Your task to perform on an android device: Go to accessibility settings Image 0: 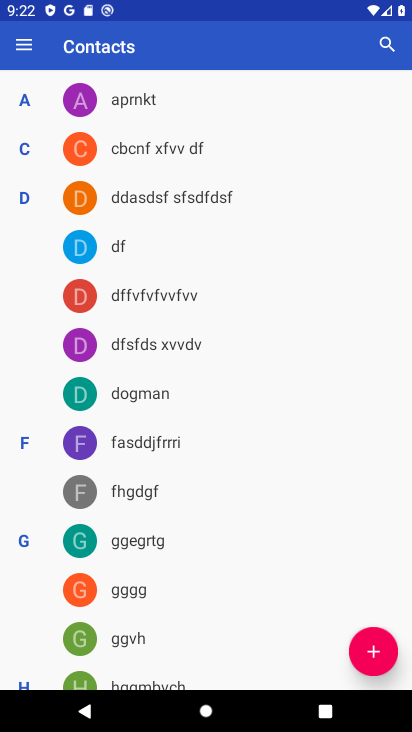
Step 0: press home button
Your task to perform on an android device: Go to accessibility settings Image 1: 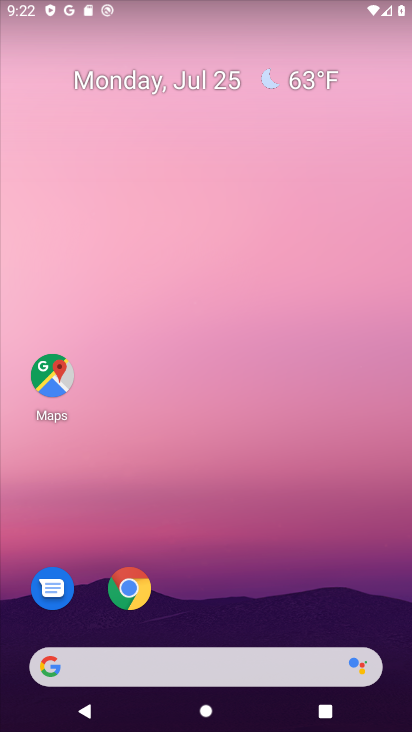
Step 1: drag from (264, 575) to (289, 86)
Your task to perform on an android device: Go to accessibility settings Image 2: 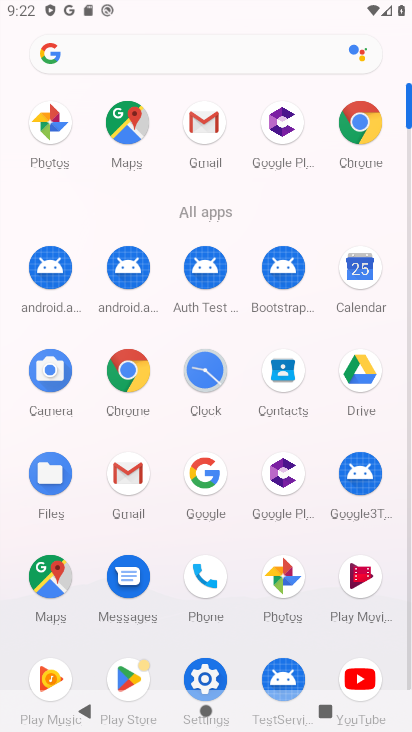
Step 2: click (212, 666)
Your task to perform on an android device: Go to accessibility settings Image 3: 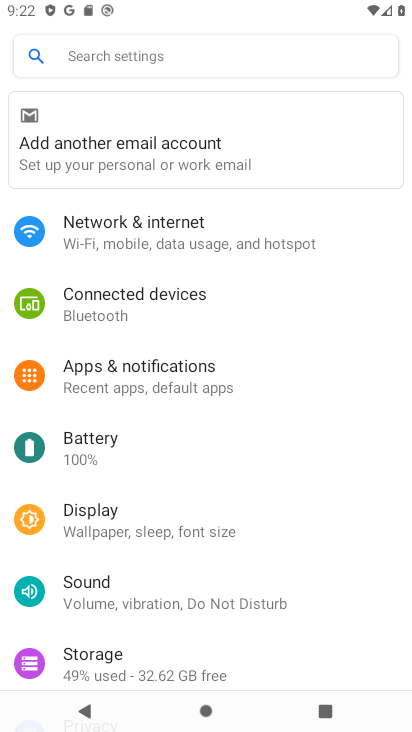
Step 3: drag from (144, 610) to (250, 281)
Your task to perform on an android device: Go to accessibility settings Image 4: 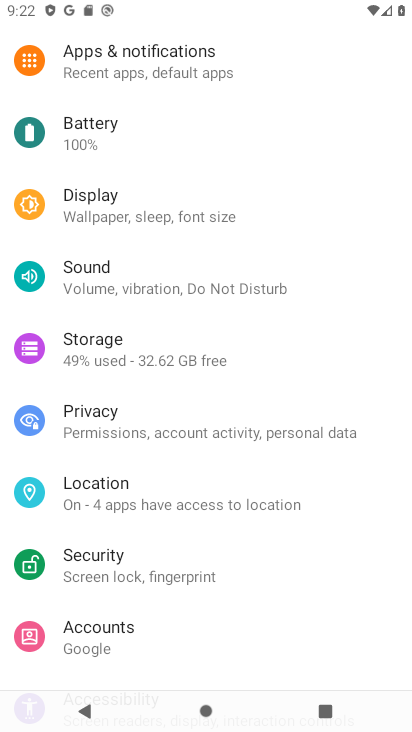
Step 4: drag from (152, 586) to (247, 243)
Your task to perform on an android device: Go to accessibility settings Image 5: 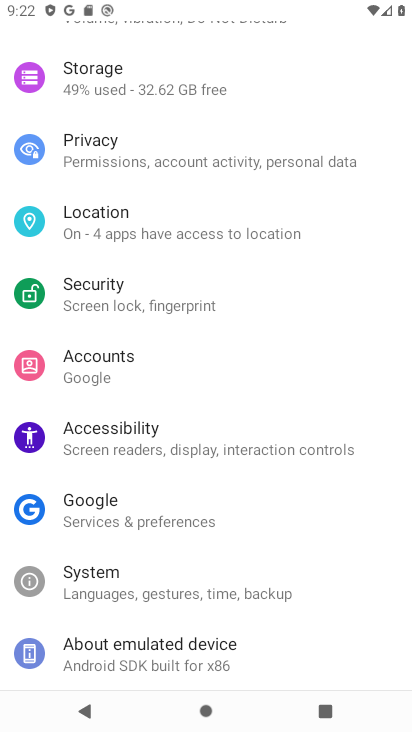
Step 5: click (114, 431)
Your task to perform on an android device: Go to accessibility settings Image 6: 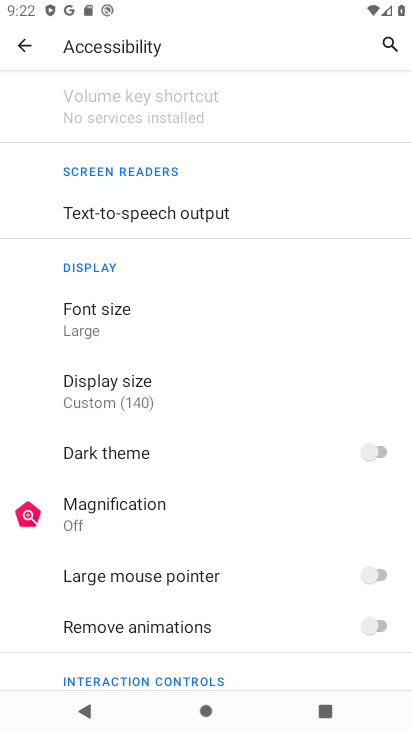
Step 6: task complete